Your task to perform on an android device: Go to Amazon Image 0: 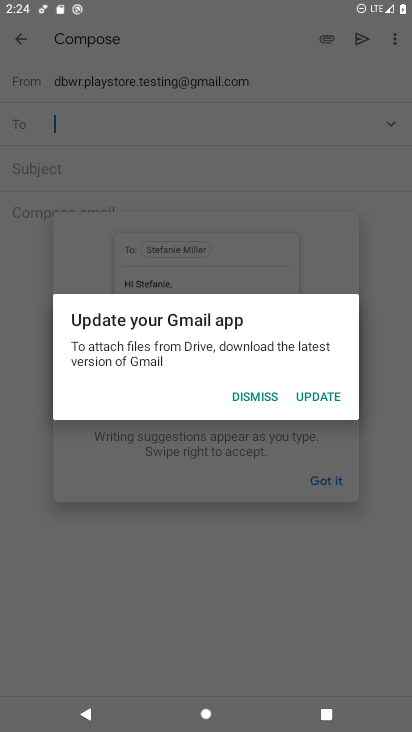
Step 0: press home button
Your task to perform on an android device: Go to Amazon Image 1: 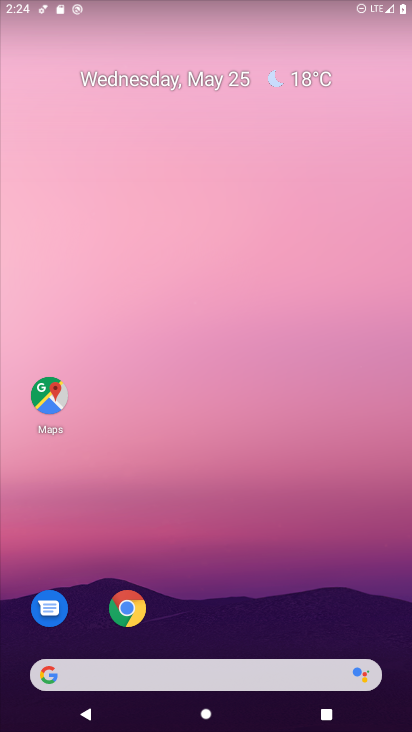
Step 1: drag from (364, 631) to (296, 225)
Your task to perform on an android device: Go to Amazon Image 2: 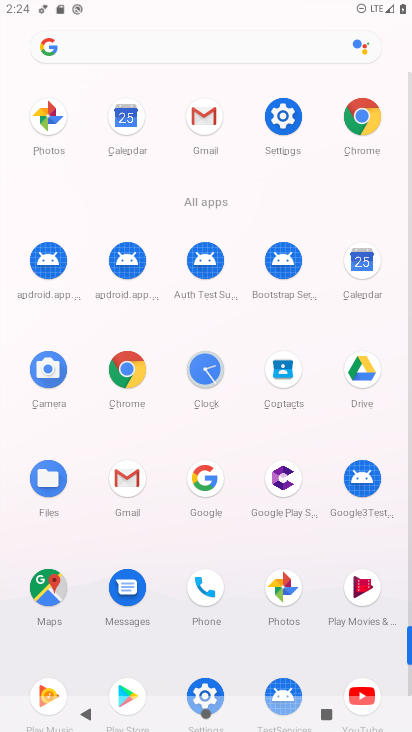
Step 2: click (409, 600)
Your task to perform on an android device: Go to Amazon Image 3: 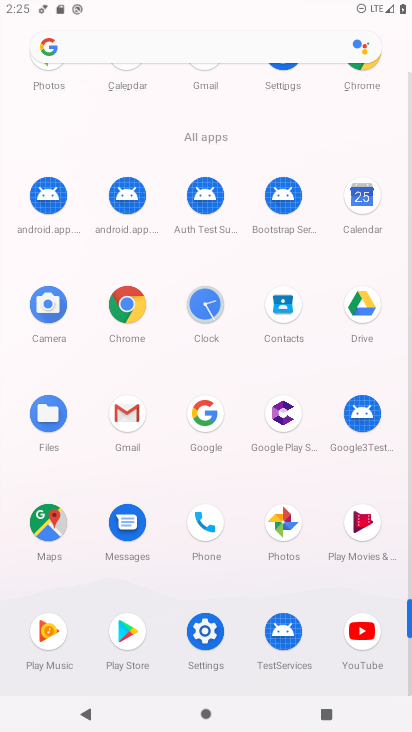
Step 3: click (129, 303)
Your task to perform on an android device: Go to Amazon Image 4: 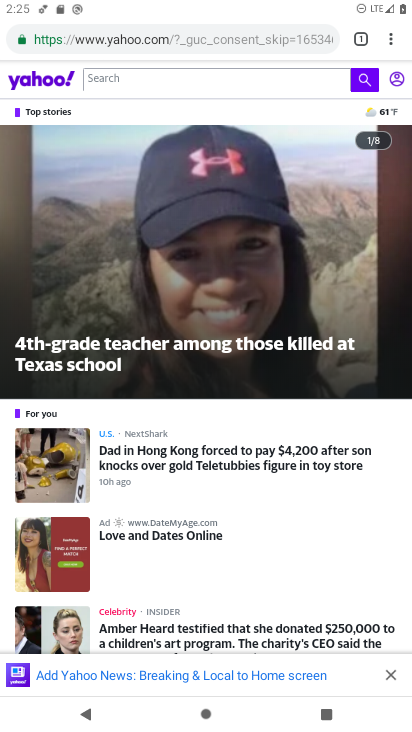
Step 4: click (223, 38)
Your task to perform on an android device: Go to Amazon Image 5: 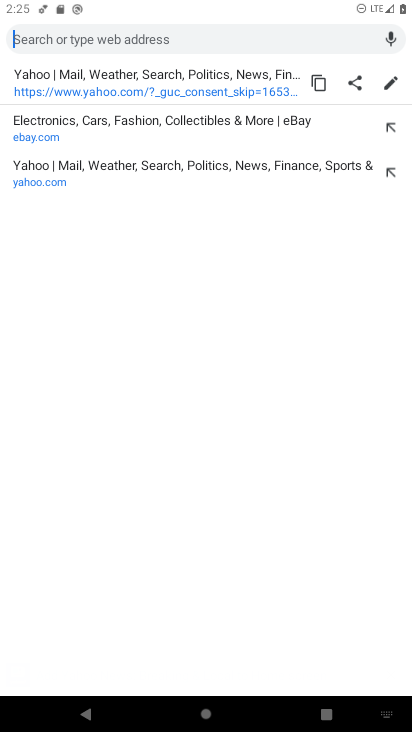
Step 5: type "amazon"
Your task to perform on an android device: Go to Amazon Image 6: 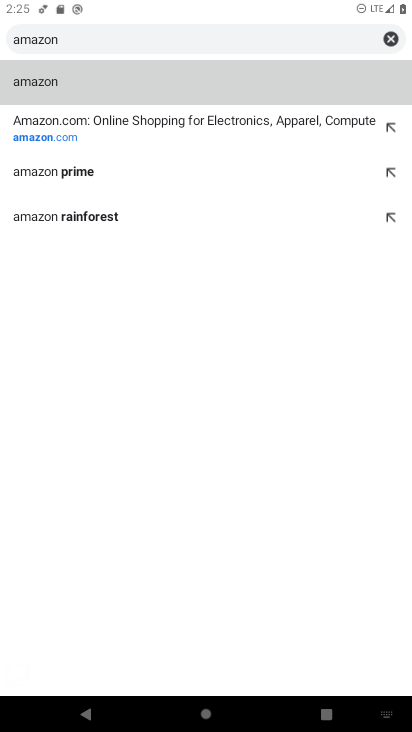
Step 6: click (82, 73)
Your task to perform on an android device: Go to Amazon Image 7: 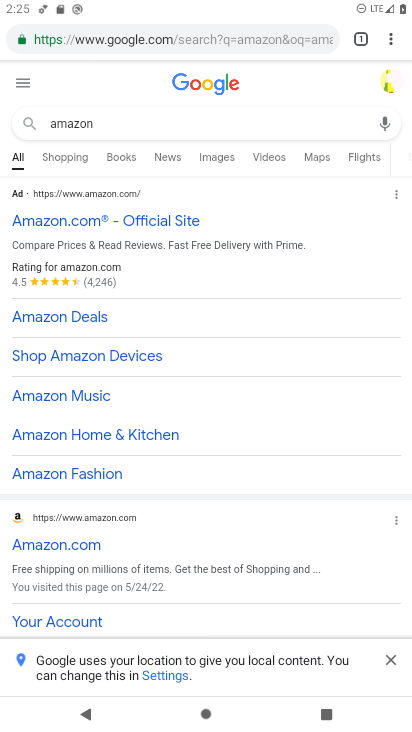
Step 7: click (65, 226)
Your task to perform on an android device: Go to Amazon Image 8: 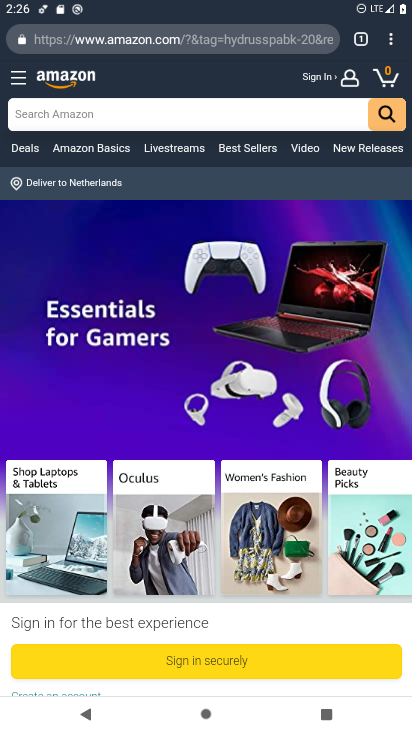
Step 8: task complete